Your task to perform on an android device: turn on sleep mode Image 0: 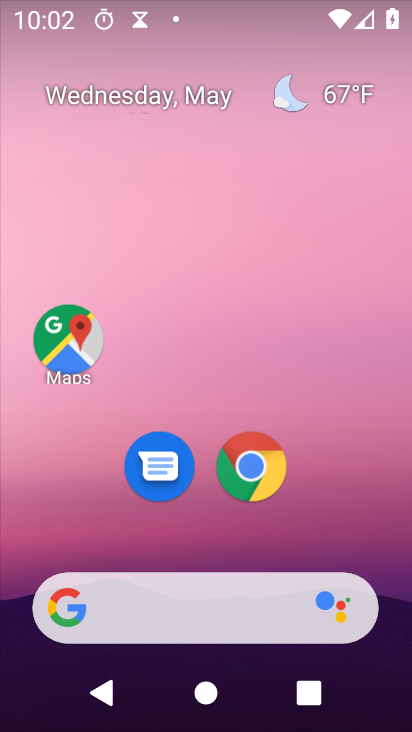
Step 0: drag from (344, 534) to (205, 97)
Your task to perform on an android device: turn on sleep mode Image 1: 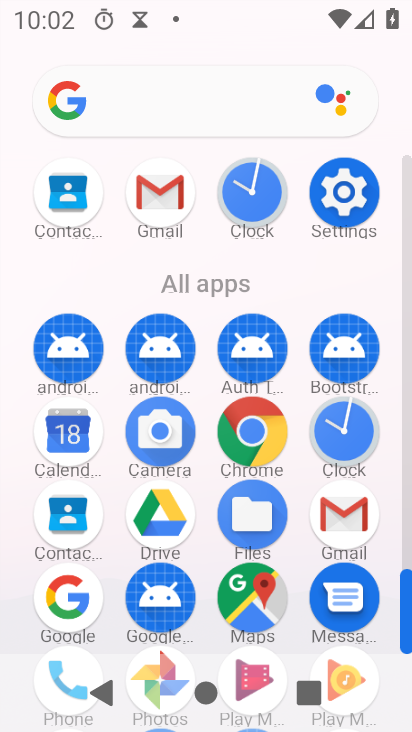
Step 1: click (354, 198)
Your task to perform on an android device: turn on sleep mode Image 2: 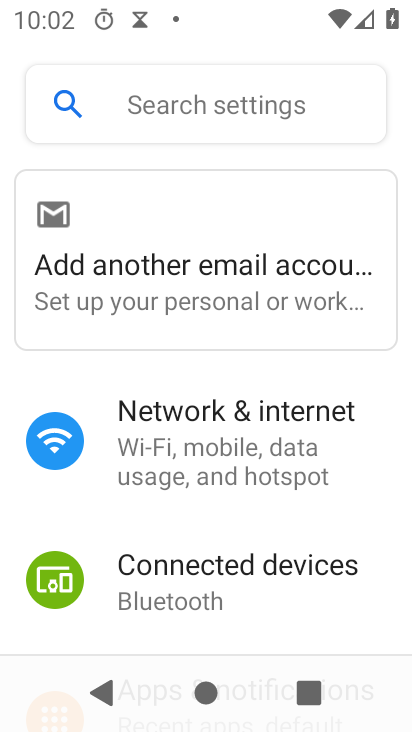
Step 2: task complete